Your task to perform on an android device: search for starred emails in the gmail app Image 0: 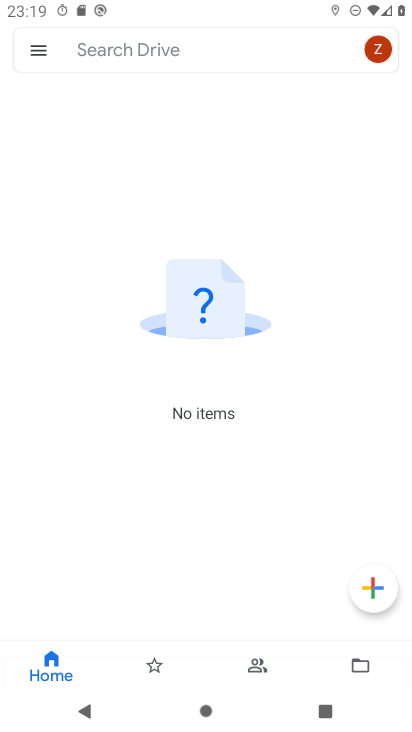
Step 0: press home button
Your task to perform on an android device: search for starred emails in the gmail app Image 1: 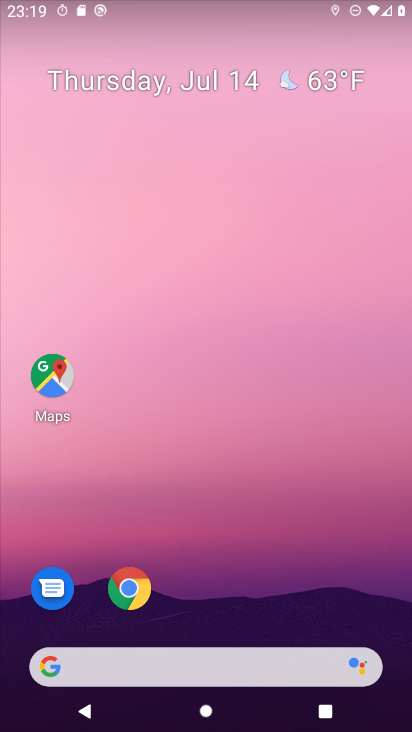
Step 1: drag from (296, 596) to (369, 29)
Your task to perform on an android device: search for starred emails in the gmail app Image 2: 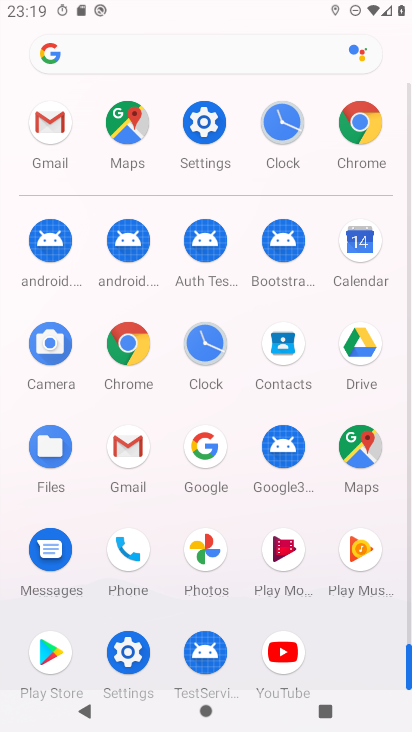
Step 2: click (56, 123)
Your task to perform on an android device: search for starred emails in the gmail app Image 3: 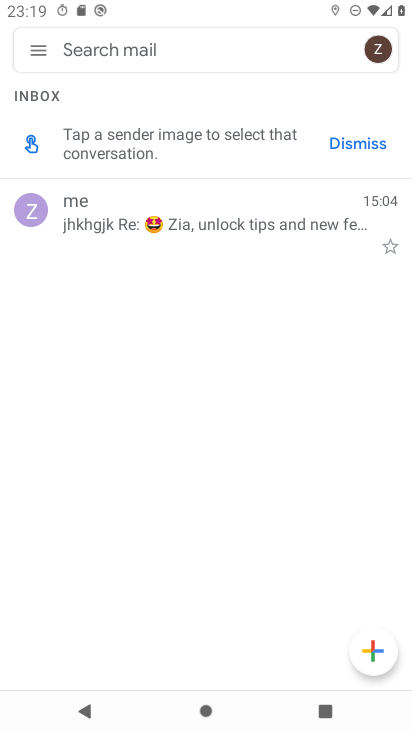
Step 3: click (36, 48)
Your task to perform on an android device: search for starred emails in the gmail app Image 4: 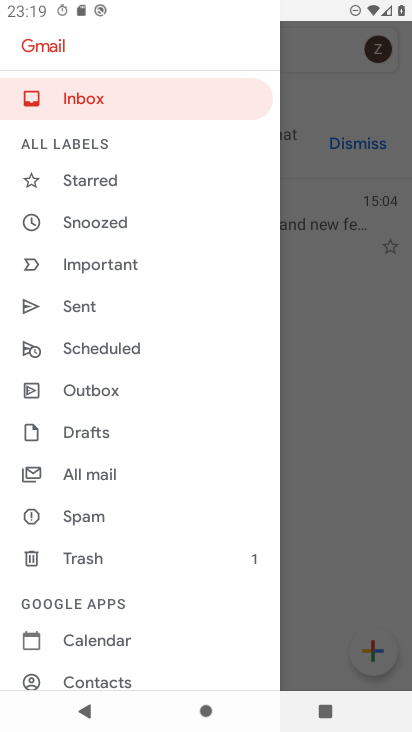
Step 4: click (161, 185)
Your task to perform on an android device: search for starred emails in the gmail app Image 5: 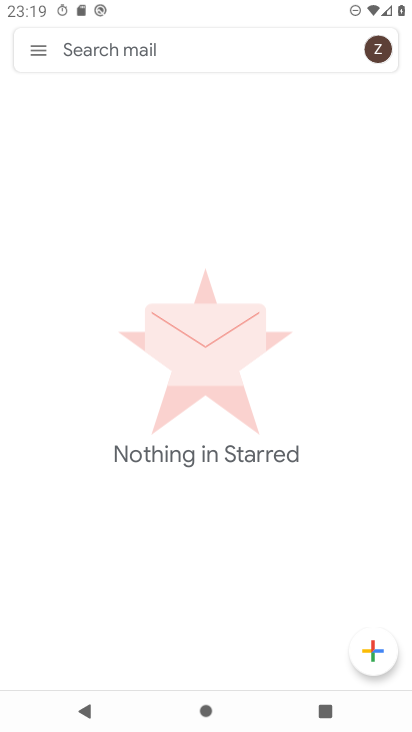
Step 5: task complete